Your task to perform on an android device: Go to internet settings Image 0: 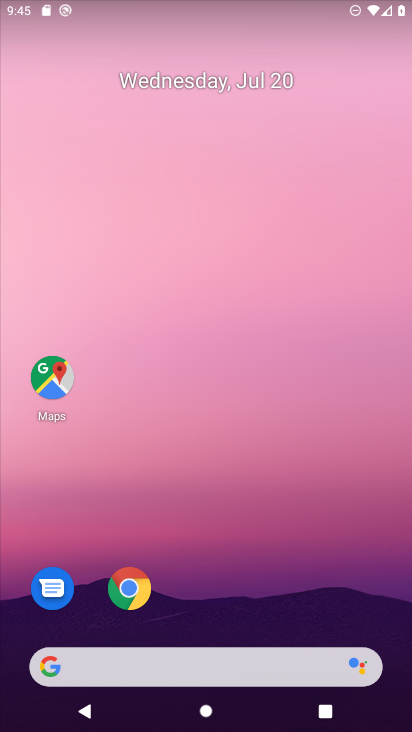
Step 0: drag from (151, 63) to (137, 577)
Your task to perform on an android device: Go to internet settings Image 1: 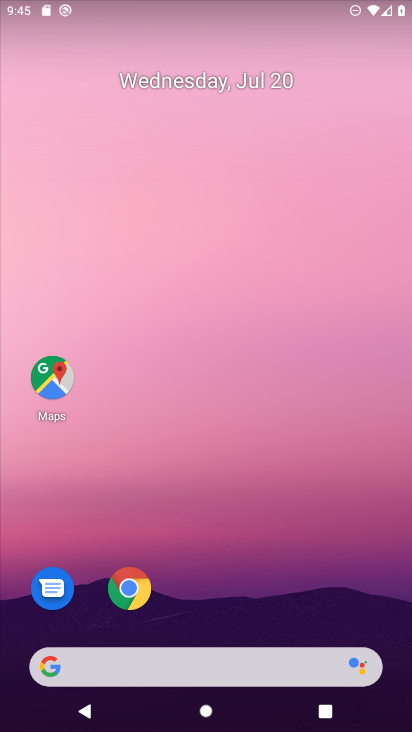
Step 1: click (289, 556)
Your task to perform on an android device: Go to internet settings Image 2: 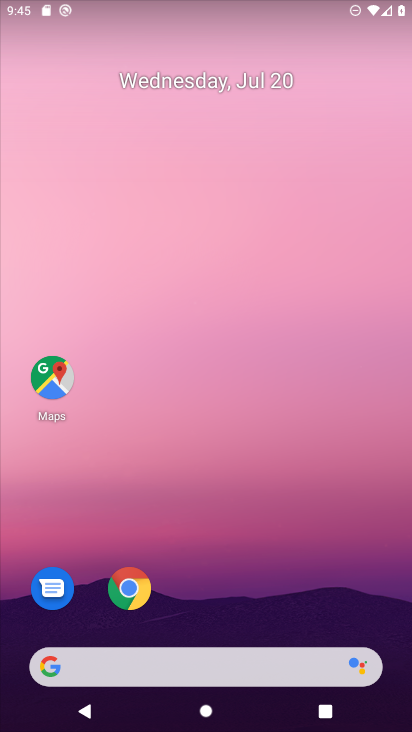
Step 2: drag from (176, 11) to (190, 471)
Your task to perform on an android device: Go to internet settings Image 3: 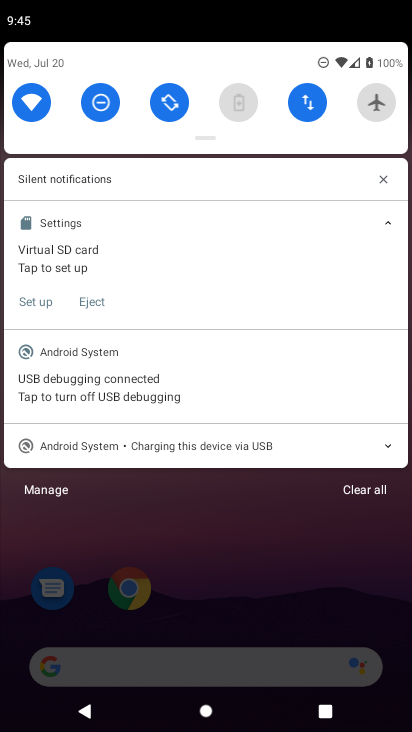
Step 3: click (305, 90)
Your task to perform on an android device: Go to internet settings Image 4: 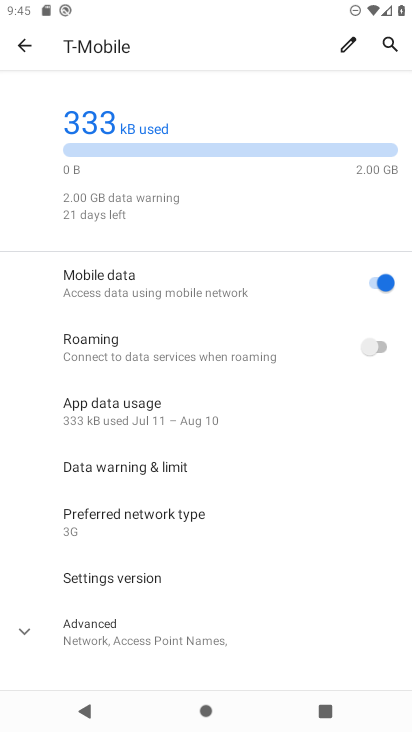
Step 4: task complete